Your task to perform on an android device: When is my next meeting? Image 0: 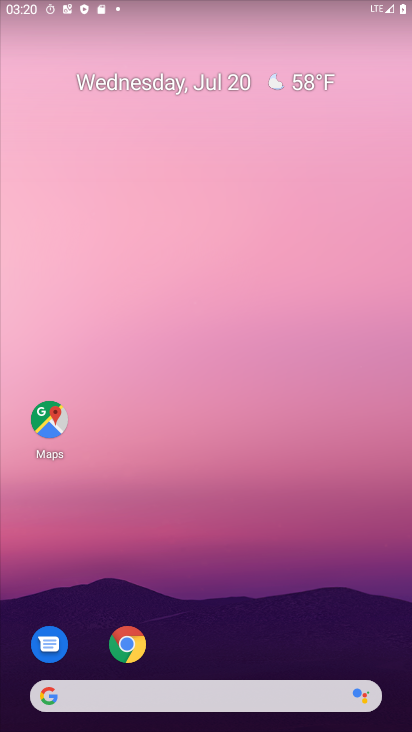
Step 0: drag from (28, 695) to (256, 308)
Your task to perform on an android device: When is my next meeting? Image 1: 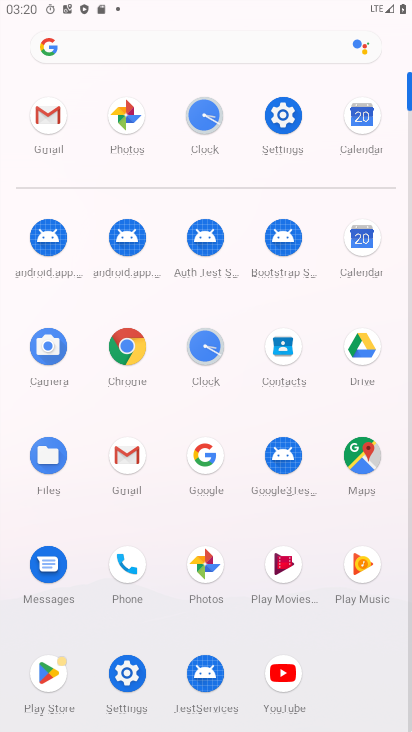
Step 1: click (365, 239)
Your task to perform on an android device: When is my next meeting? Image 2: 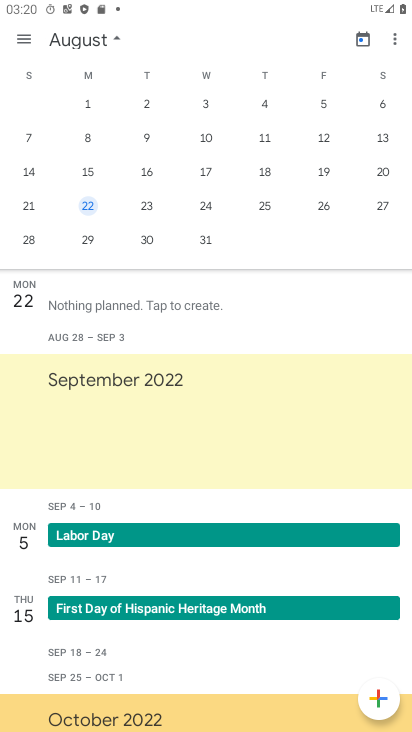
Step 2: task complete